Your task to perform on an android device: change the clock display to digital Image 0: 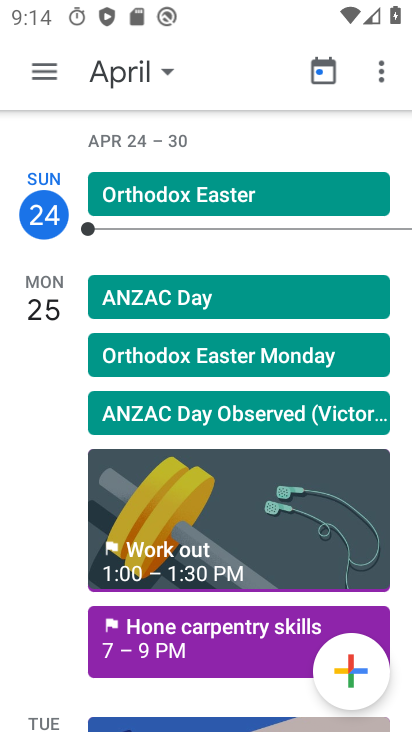
Step 0: press home button
Your task to perform on an android device: change the clock display to digital Image 1: 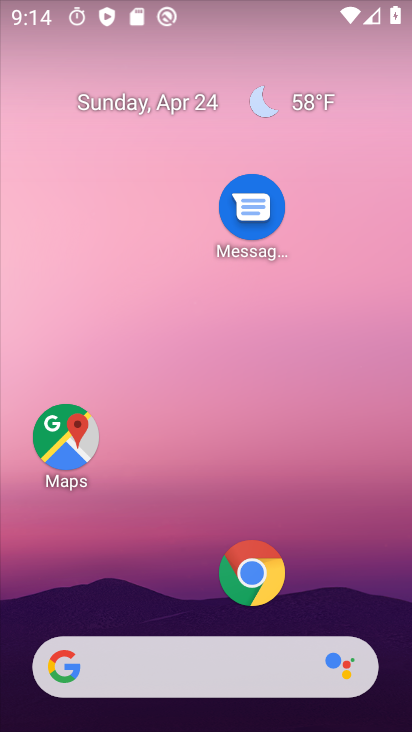
Step 1: drag from (157, 560) to (288, 5)
Your task to perform on an android device: change the clock display to digital Image 2: 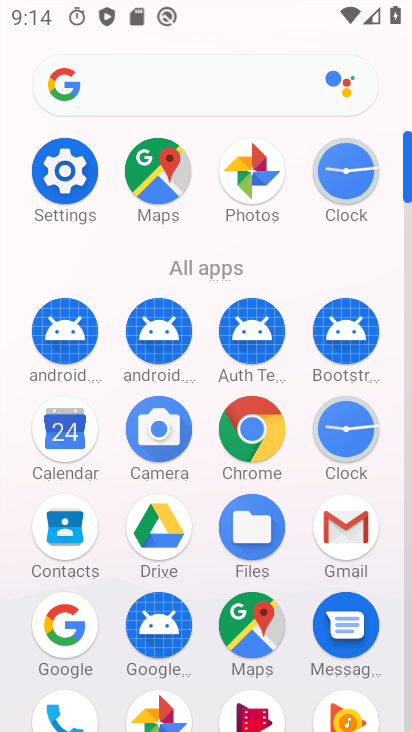
Step 2: click (344, 446)
Your task to perform on an android device: change the clock display to digital Image 3: 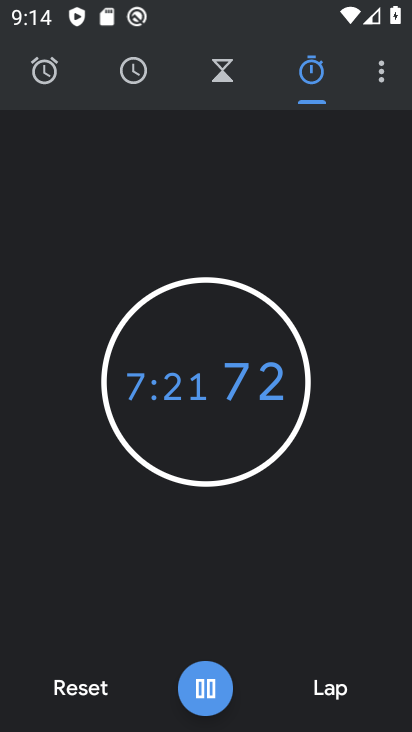
Step 3: click (379, 80)
Your task to perform on an android device: change the clock display to digital Image 4: 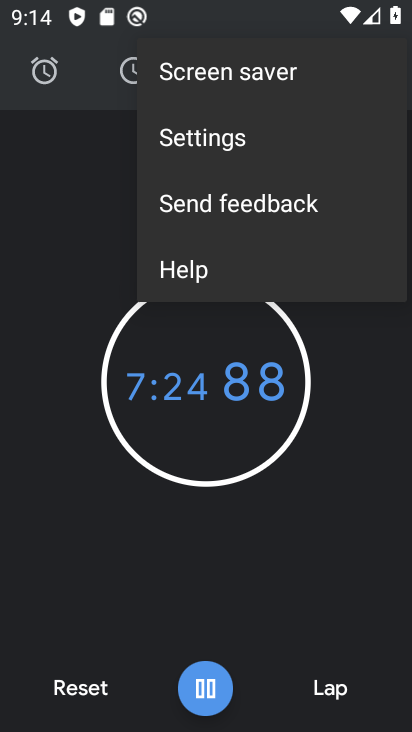
Step 4: click (218, 144)
Your task to perform on an android device: change the clock display to digital Image 5: 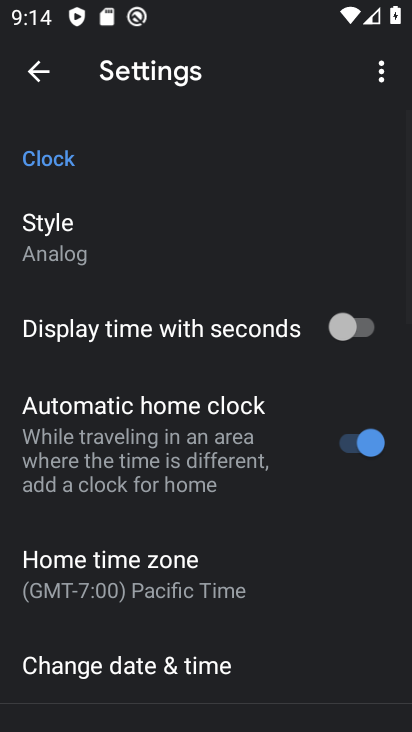
Step 5: click (79, 249)
Your task to perform on an android device: change the clock display to digital Image 6: 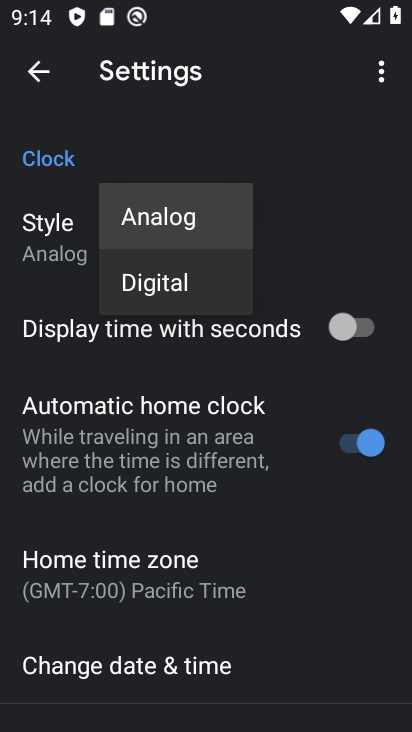
Step 6: click (157, 287)
Your task to perform on an android device: change the clock display to digital Image 7: 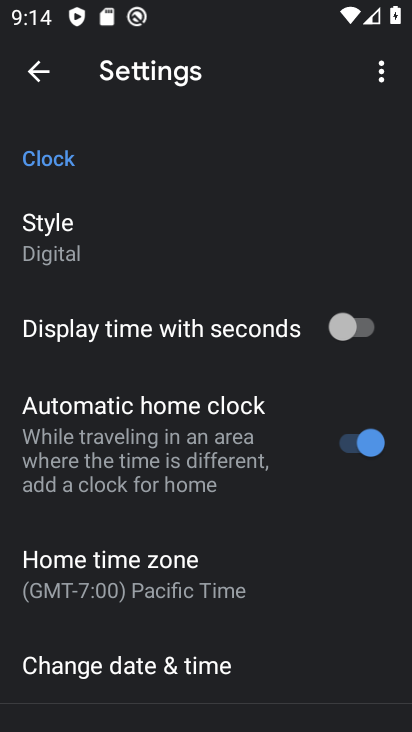
Step 7: task complete